Your task to perform on an android device: check storage Image 0: 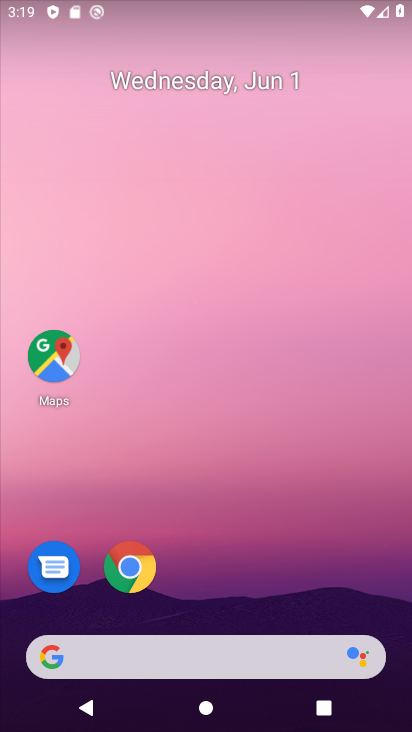
Step 0: drag from (191, 535) to (191, 304)
Your task to perform on an android device: check storage Image 1: 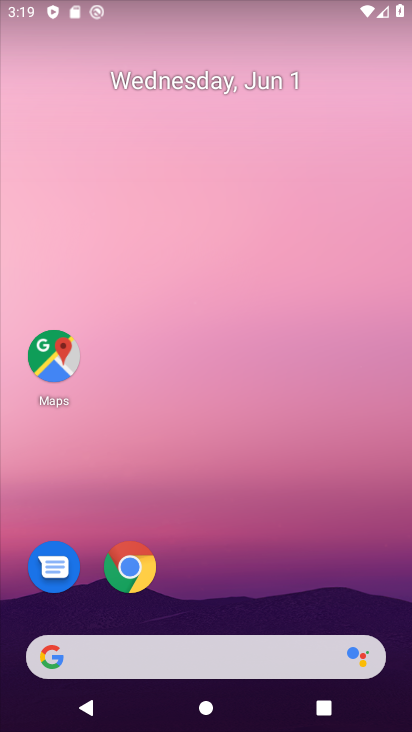
Step 1: drag from (246, 645) to (218, 201)
Your task to perform on an android device: check storage Image 2: 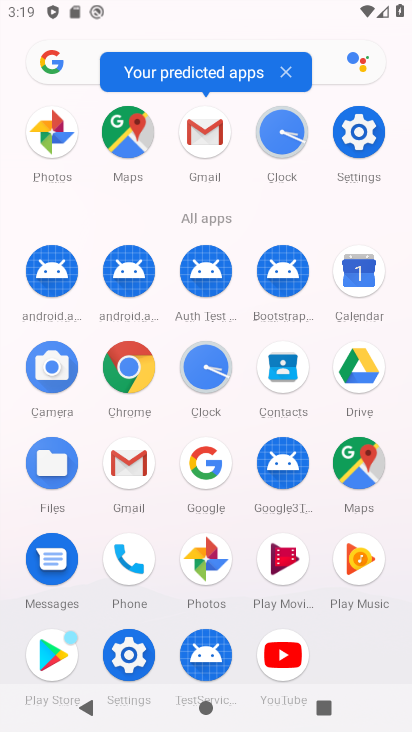
Step 2: click (354, 129)
Your task to perform on an android device: check storage Image 3: 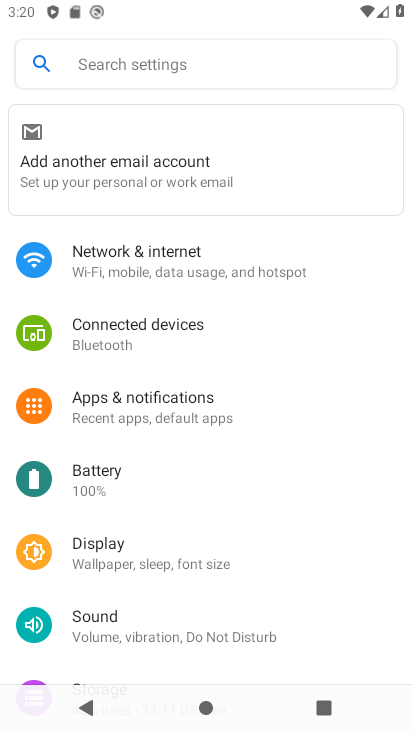
Step 3: click (173, 328)
Your task to perform on an android device: check storage Image 4: 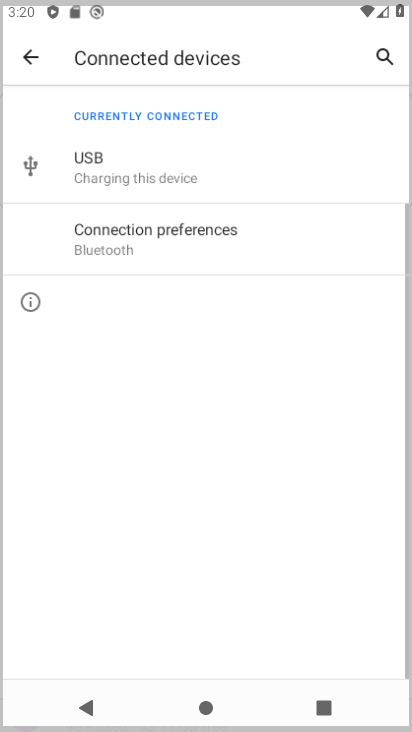
Step 4: click (123, 285)
Your task to perform on an android device: check storage Image 5: 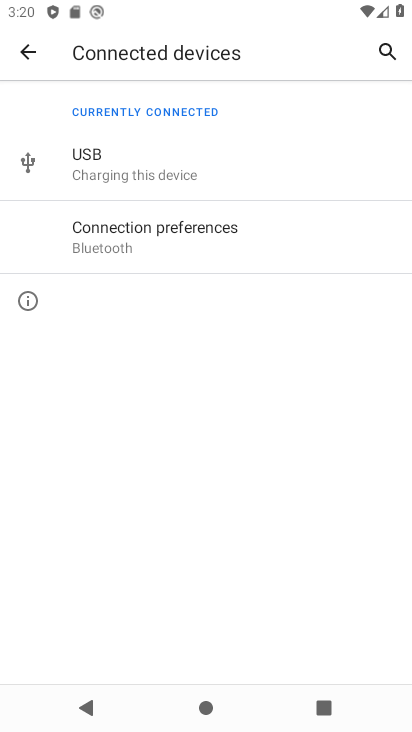
Step 5: press back button
Your task to perform on an android device: check storage Image 6: 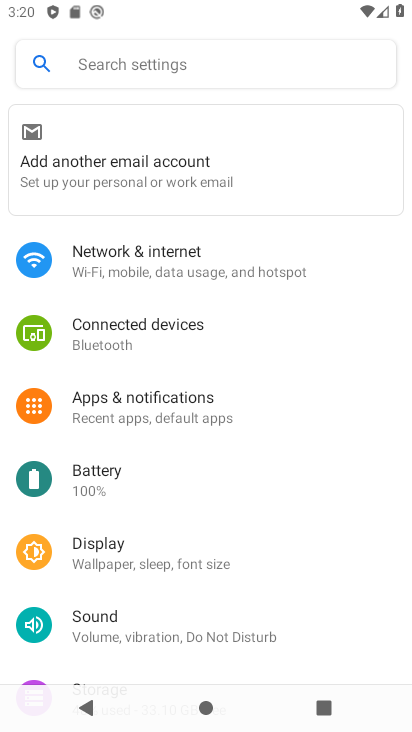
Step 6: click (130, 592)
Your task to perform on an android device: check storage Image 7: 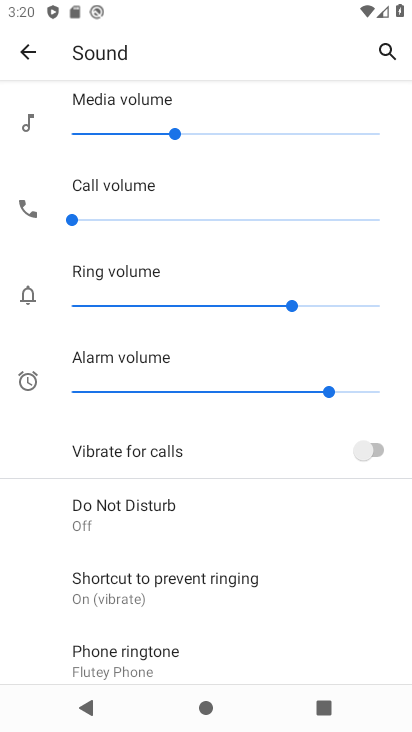
Step 7: press back button
Your task to perform on an android device: check storage Image 8: 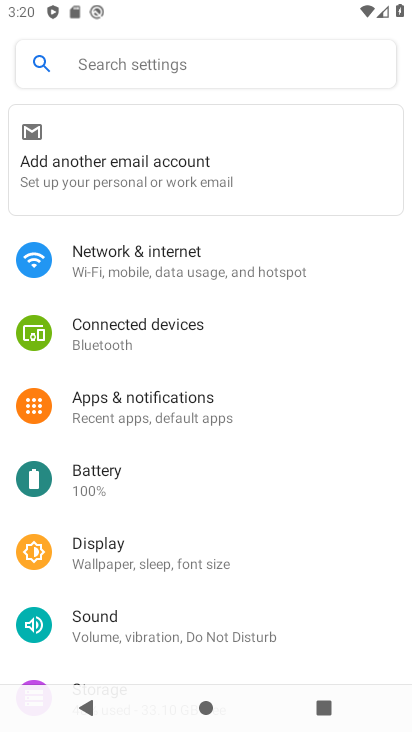
Step 8: drag from (144, 557) to (141, 418)
Your task to perform on an android device: check storage Image 9: 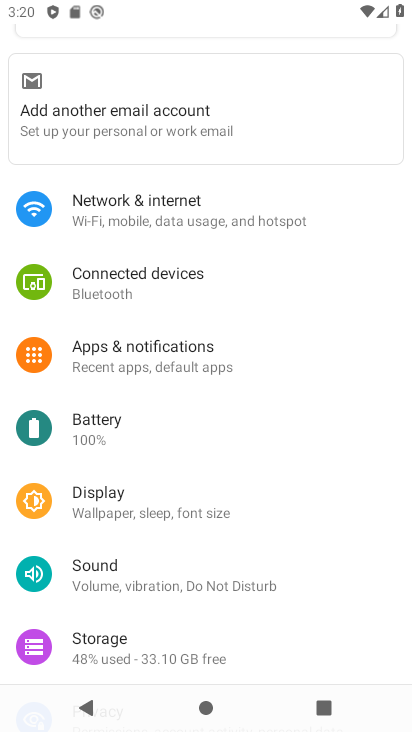
Step 9: click (140, 649)
Your task to perform on an android device: check storage Image 10: 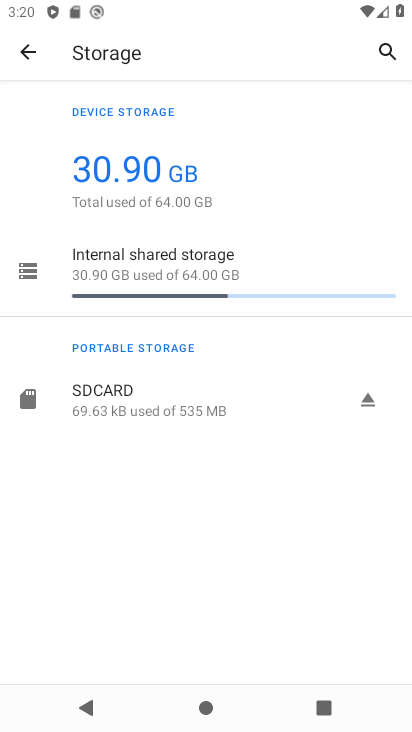
Step 10: task complete